Your task to perform on an android device: turn on showing notifications on the lock screen Image 0: 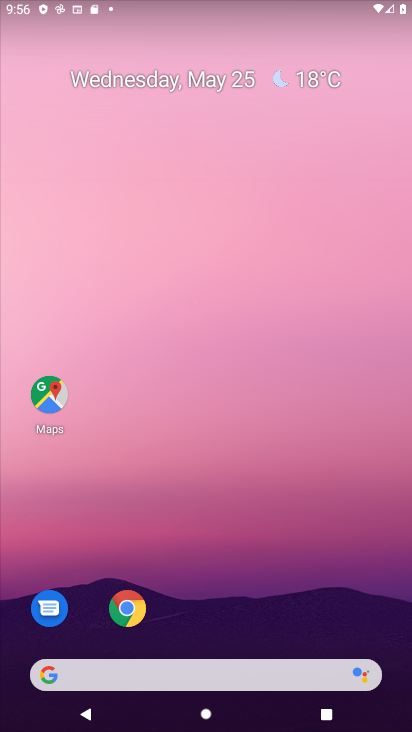
Step 0: drag from (305, 542) to (230, 24)
Your task to perform on an android device: turn on showing notifications on the lock screen Image 1: 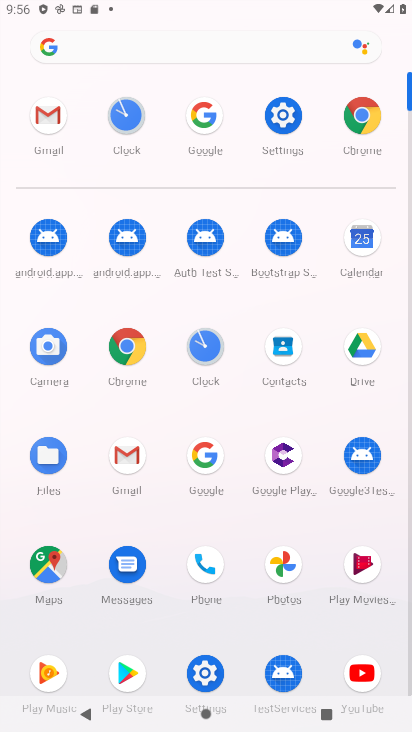
Step 1: click (280, 119)
Your task to perform on an android device: turn on showing notifications on the lock screen Image 2: 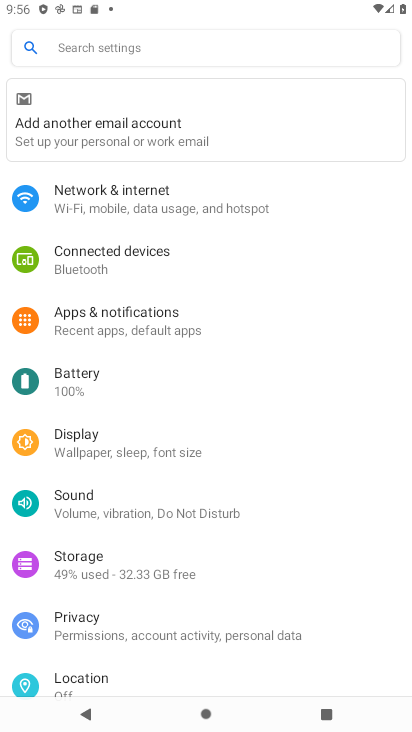
Step 2: click (159, 319)
Your task to perform on an android device: turn on showing notifications on the lock screen Image 3: 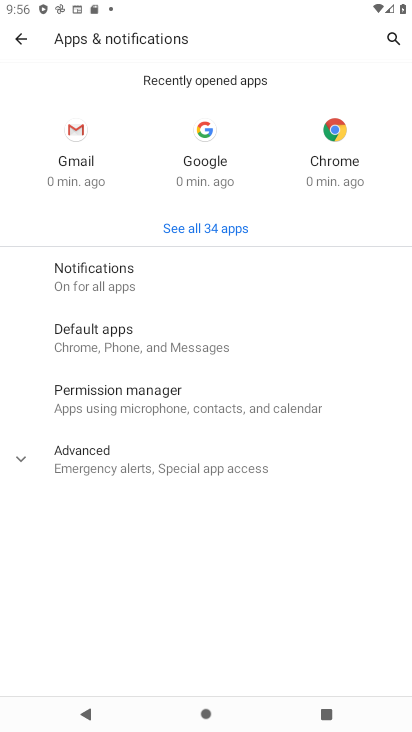
Step 3: click (141, 286)
Your task to perform on an android device: turn on showing notifications on the lock screen Image 4: 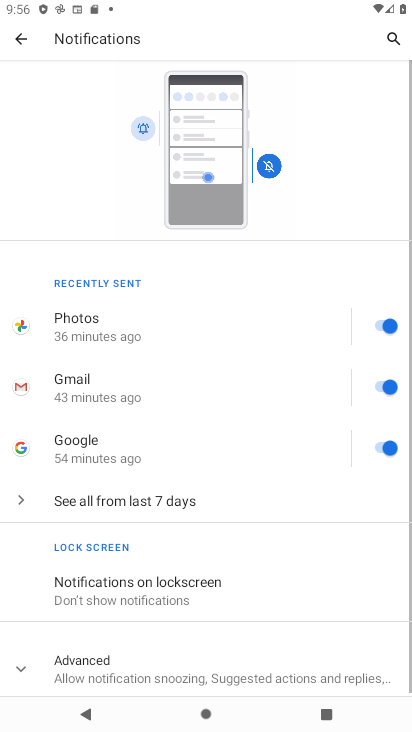
Step 4: click (173, 588)
Your task to perform on an android device: turn on showing notifications on the lock screen Image 5: 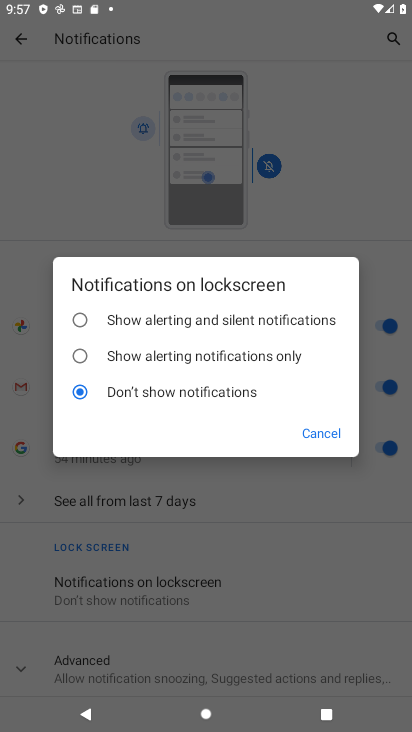
Step 5: click (219, 310)
Your task to perform on an android device: turn on showing notifications on the lock screen Image 6: 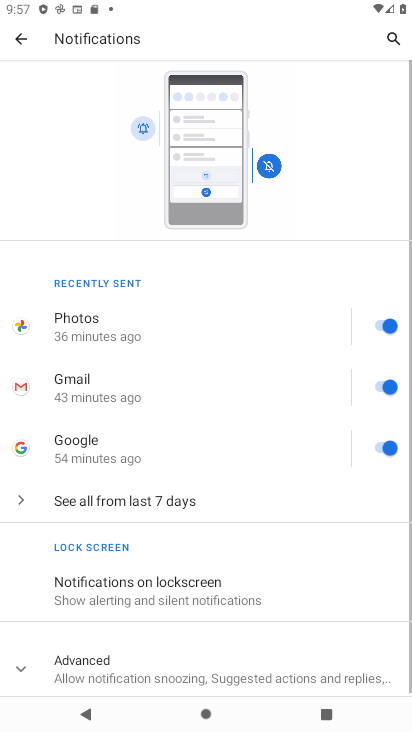
Step 6: task complete